Your task to perform on an android device: open chrome and create a bookmark for the current page Image 0: 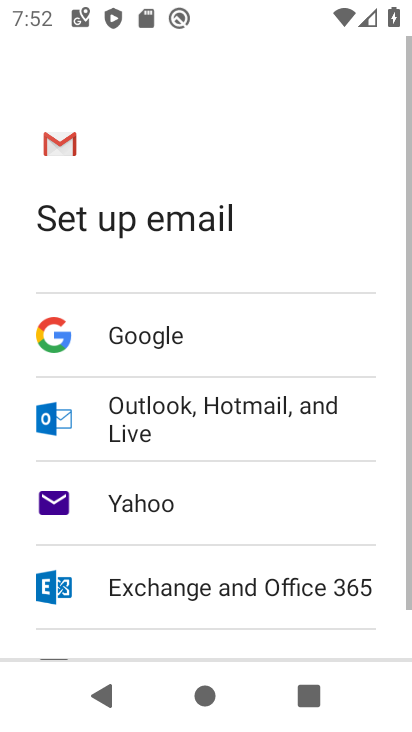
Step 0: press home button
Your task to perform on an android device: open chrome and create a bookmark for the current page Image 1: 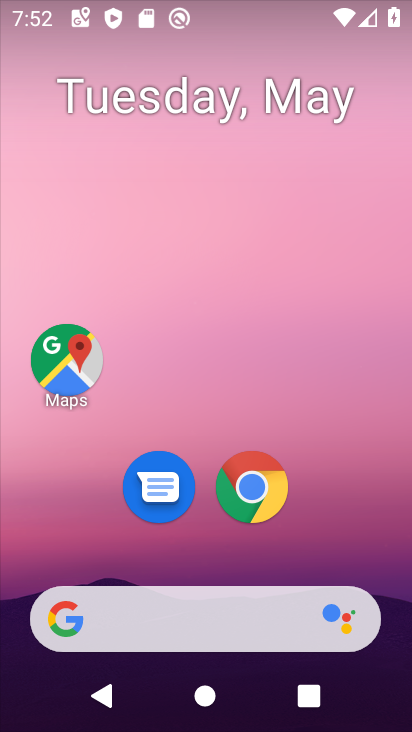
Step 1: drag from (350, 508) to (349, 190)
Your task to perform on an android device: open chrome and create a bookmark for the current page Image 2: 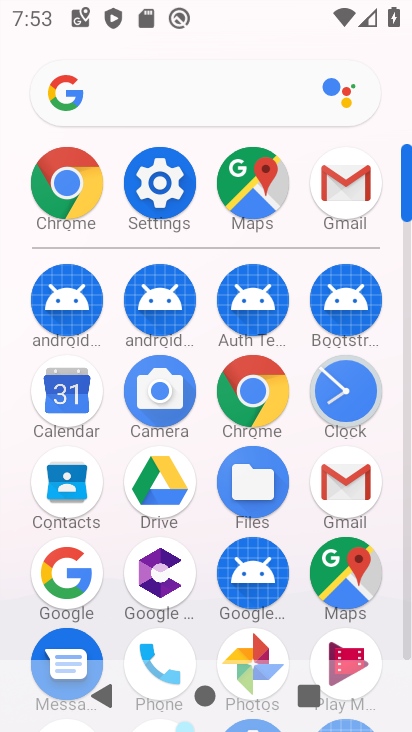
Step 2: click (264, 397)
Your task to perform on an android device: open chrome and create a bookmark for the current page Image 3: 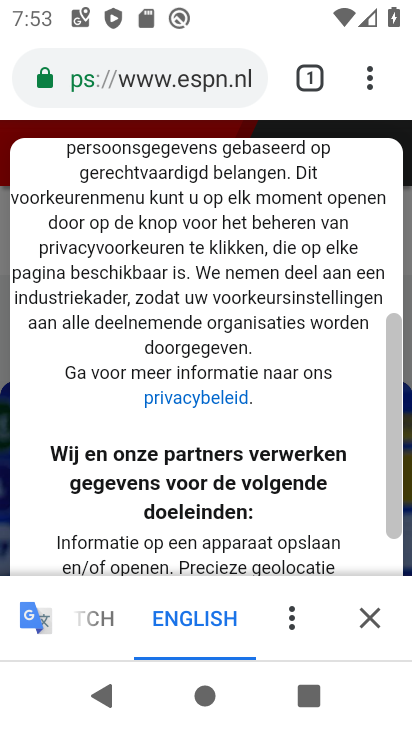
Step 3: click (370, 87)
Your task to perform on an android device: open chrome and create a bookmark for the current page Image 4: 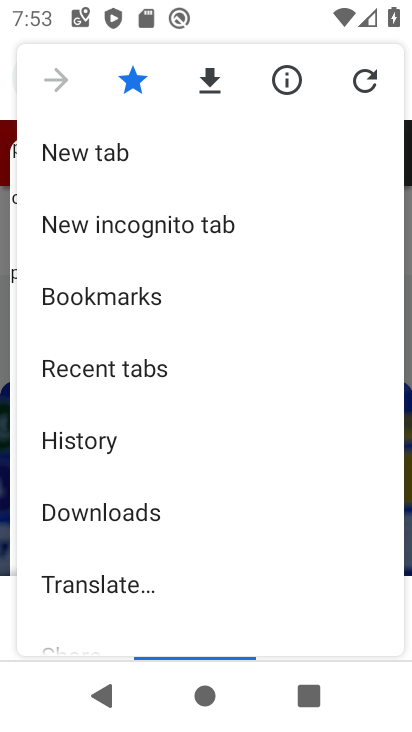
Step 4: task complete